Your task to perform on an android device: make emails show in primary in the gmail app Image 0: 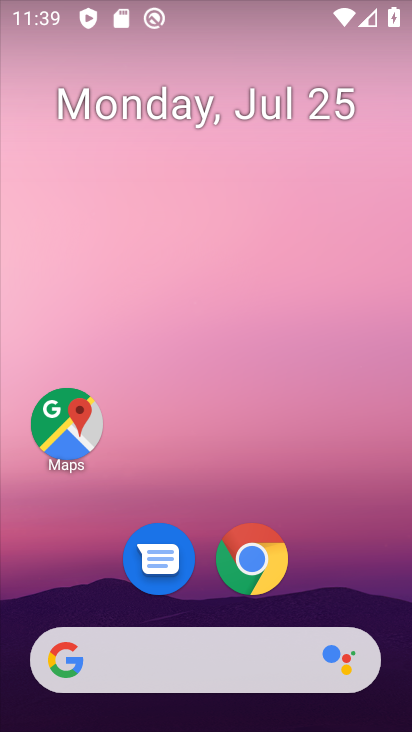
Step 0: drag from (96, 555) to (252, 0)
Your task to perform on an android device: make emails show in primary in the gmail app Image 1: 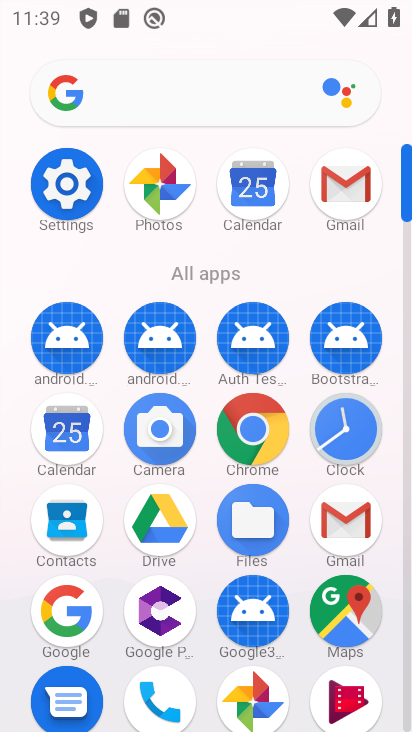
Step 1: click (336, 188)
Your task to perform on an android device: make emails show in primary in the gmail app Image 2: 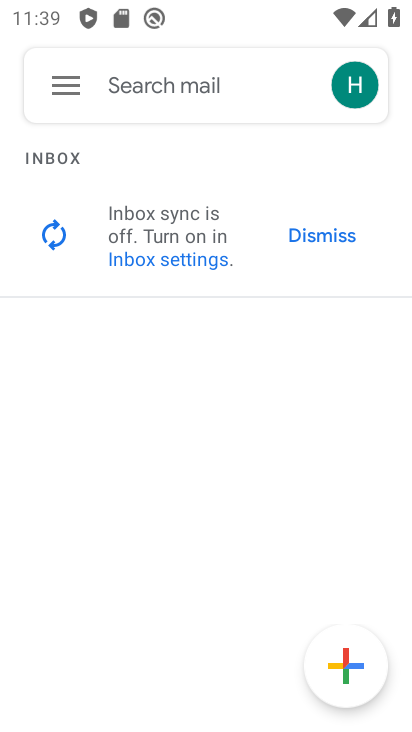
Step 2: click (70, 79)
Your task to perform on an android device: make emails show in primary in the gmail app Image 3: 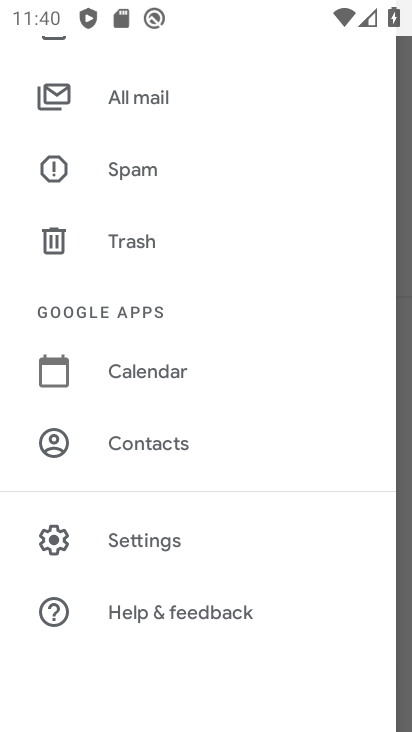
Step 3: click (159, 547)
Your task to perform on an android device: make emails show in primary in the gmail app Image 4: 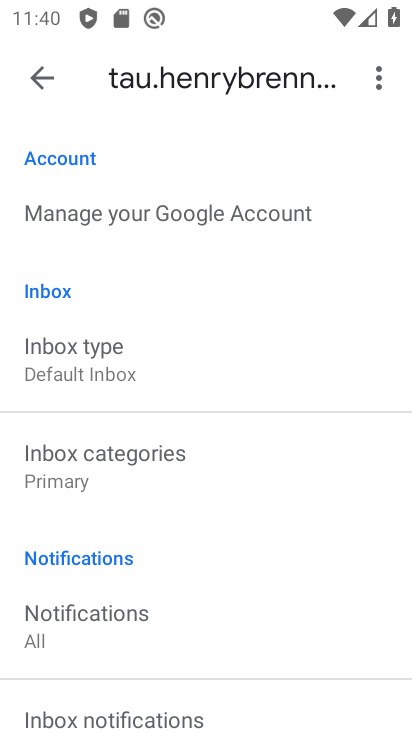
Step 4: click (45, 462)
Your task to perform on an android device: make emails show in primary in the gmail app Image 5: 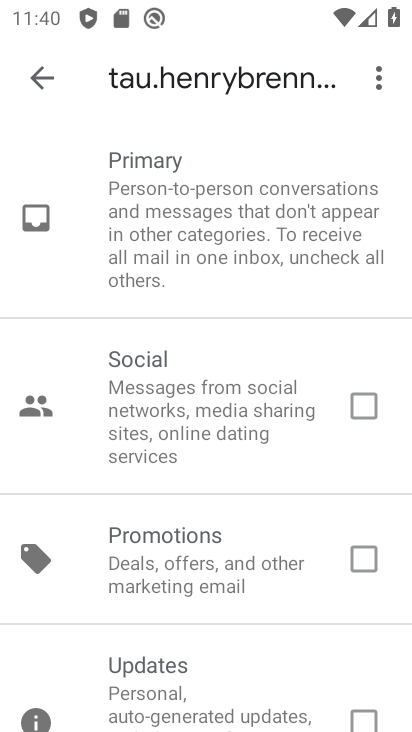
Step 5: click (374, 395)
Your task to perform on an android device: make emails show in primary in the gmail app Image 6: 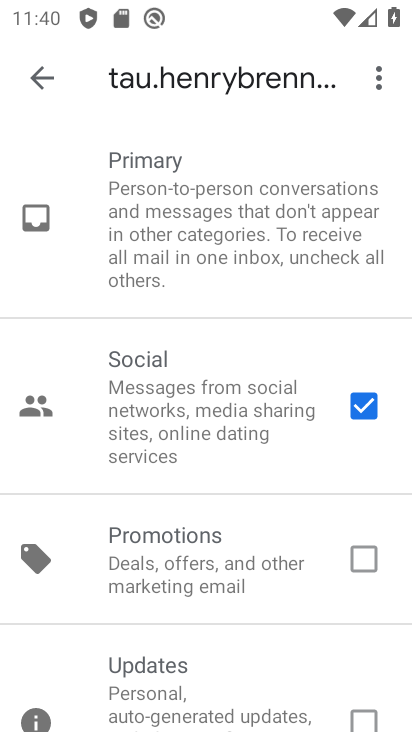
Step 6: drag from (229, 609) to (313, 151)
Your task to perform on an android device: make emails show in primary in the gmail app Image 7: 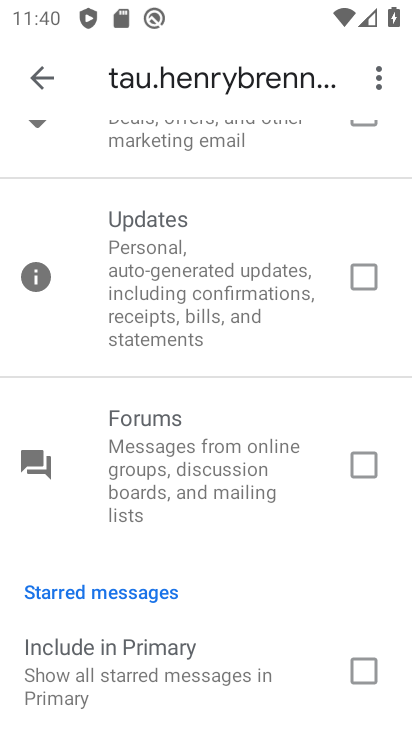
Step 7: click (360, 486)
Your task to perform on an android device: make emails show in primary in the gmail app Image 8: 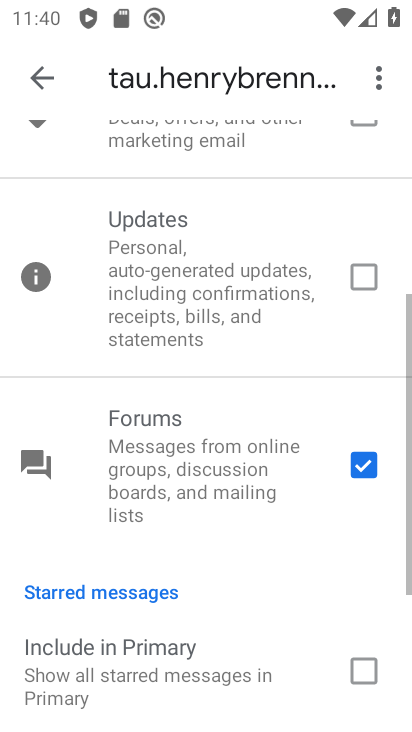
Step 8: drag from (211, 595) to (270, 393)
Your task to perform on an android device: make emails show in primary in the gmail app Image 9: 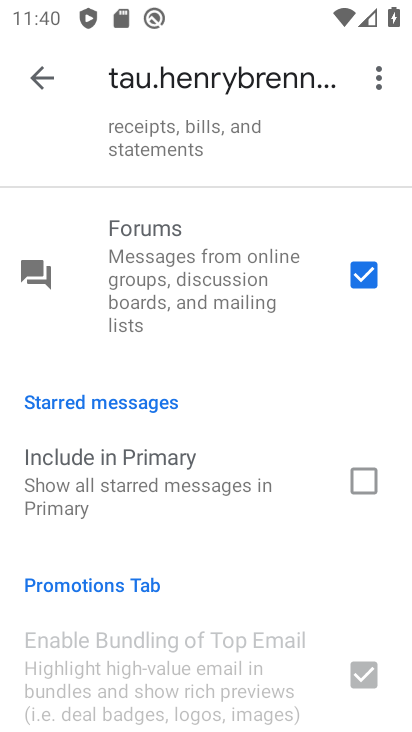
Step 9: click (371, 475)
Your task to perform on an android device: make emails show in primary in the gmail app Image 10: 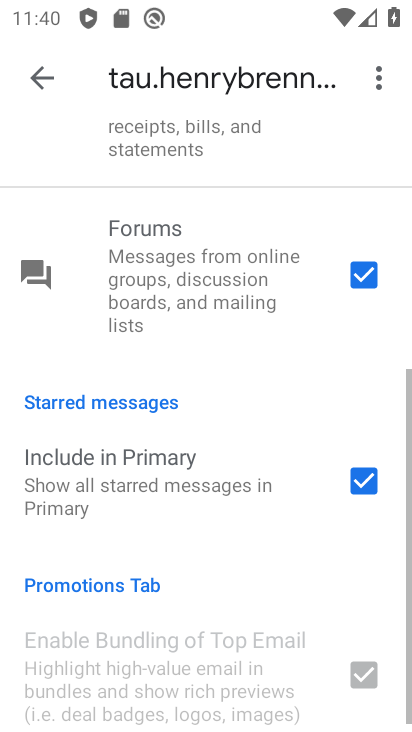
Step 10: drag from (262, 232) to (212, 586)
Your task to perform on an android device: make emails show in primary in the gmail app Image 11: 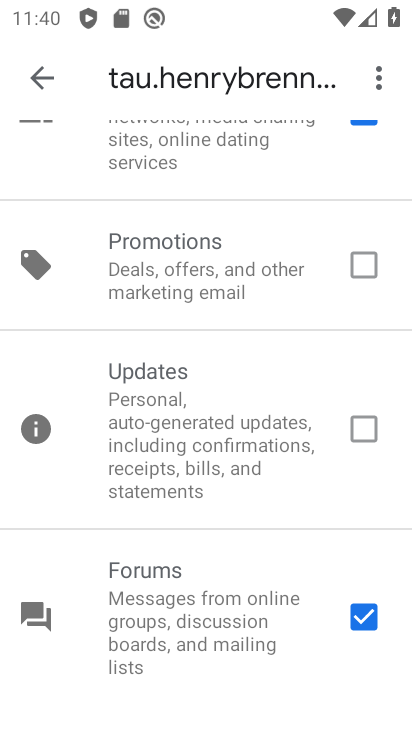
Step 11: click (360, 308)
Your task to perform on an android device: make emails show in primary in the gmail app Image 12: 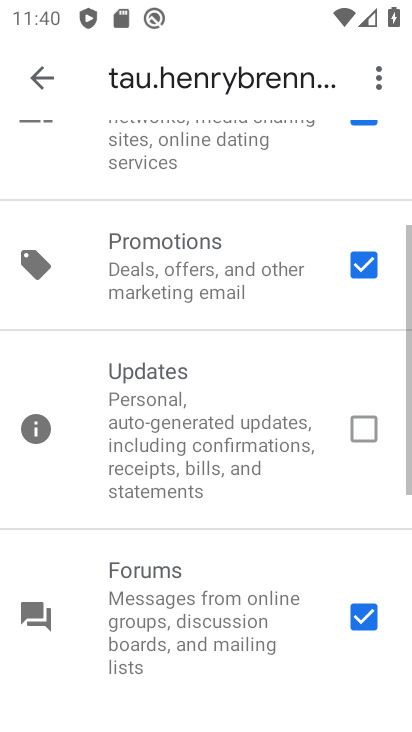
Step 12: click (359, 427)
Your task to perform on an android device: make emails show in primary in the gmail app Image 13: 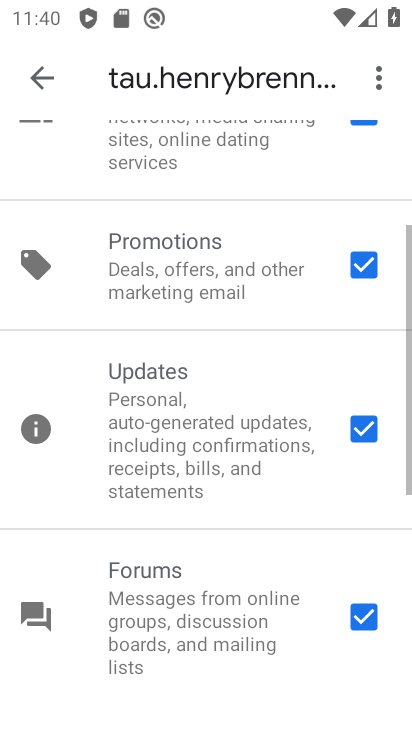
Step 13: task complete